Your task to perform on an android device: turn smart compose on in the gmail app Image 0: 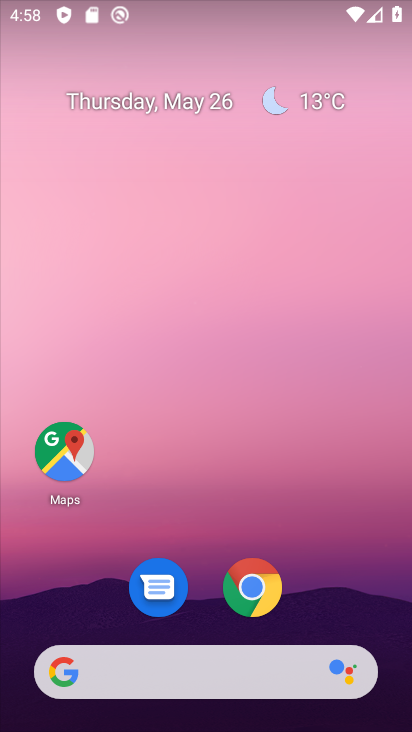
Step 0: drag from (225, 579) to (208, 78)
Your task to perform on an android device: turn smart compose on in the gmail app Image 1: 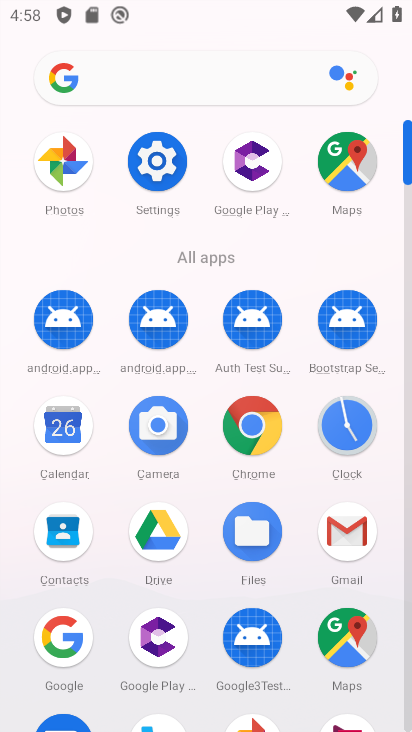
Step 1: click (345, 537)
Your task to perform on an android device: turn smart compose on in the gmail app Image 2: 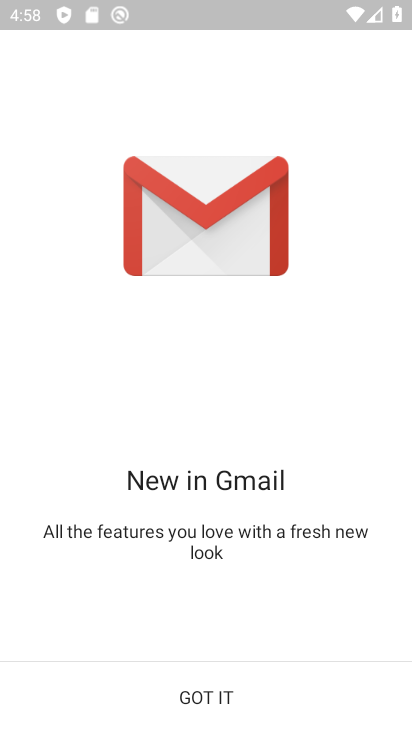
Step 2: click (207, 689)
Your task to perform on an android device: turn smart compose on in the gmail app Image 3: 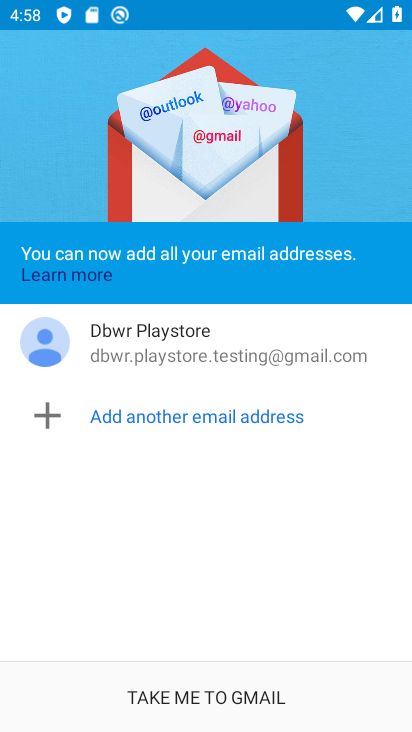
Step 3: click (207, 689)
Your task to perform on an android device: turn smart compose on in the gmail app Image 4: 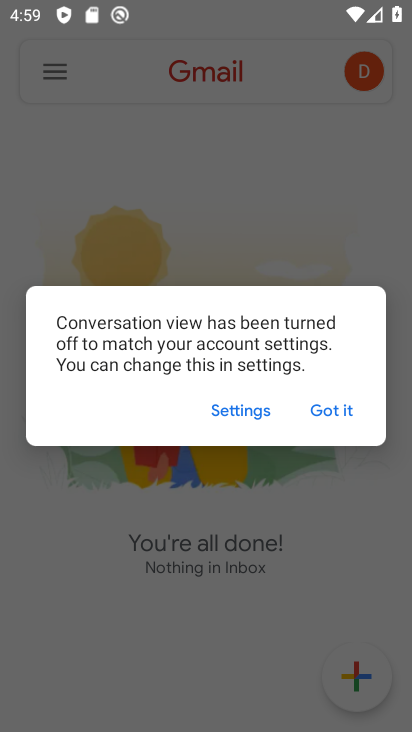
Step 4: click (331, 406)
Your task to perform on an android device: turn smart compose on in the gmail app Image 5: 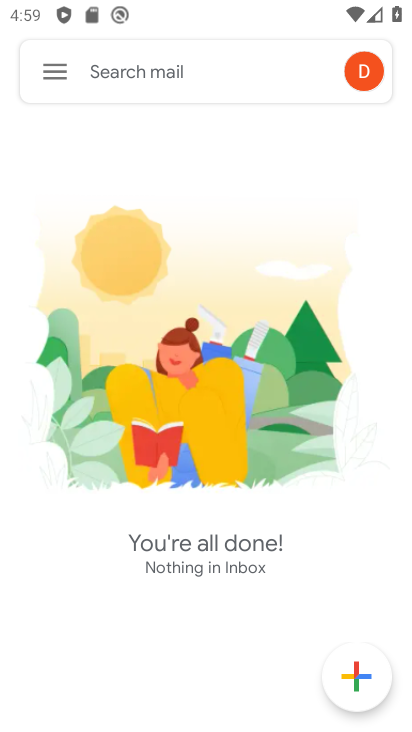
Step 5: click (53, 66)
Your task to perform on an android device: turn smart compose on in the gmail app Image 6: 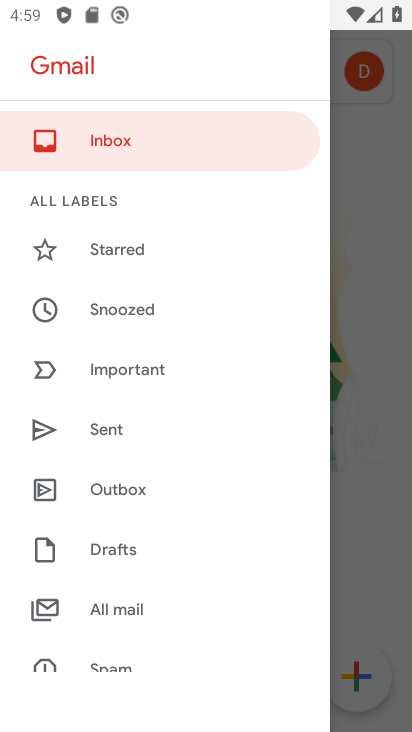
Step 6: drag from (97, 646) to (72, 201)
Your task to perform on an android device: turn smart compose on in the gmail app Image 7: 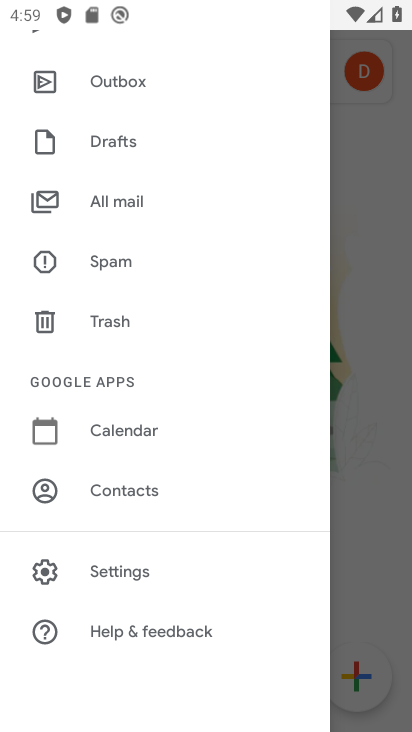
Step 7: click (115, 566)
Your task to perform on an android device: turn smart compose on in the gmail app Image 8: 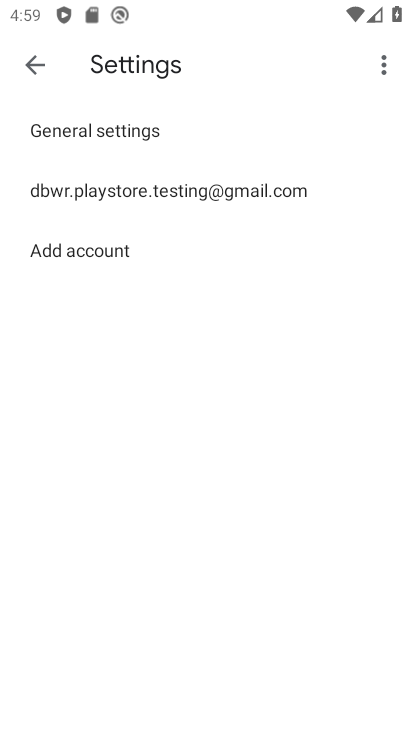
Step 8: click (96, 194)
Your task to perform on an android device: turn smart compose on in the gmail app Image 9: 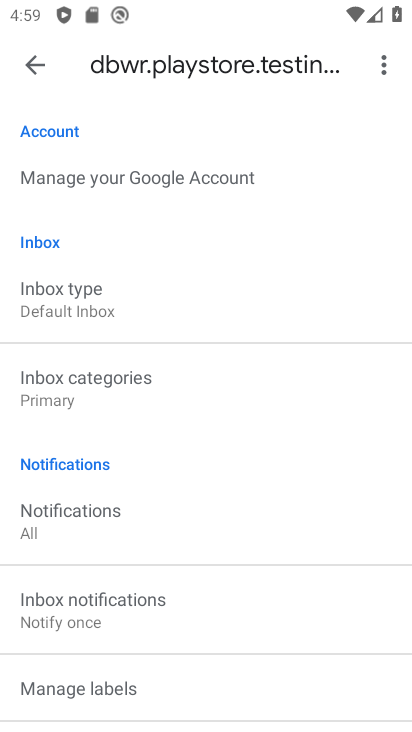
Step 9: task complete